Your task to perform on an android device: manage bookmarks in the chrome app Image 0: 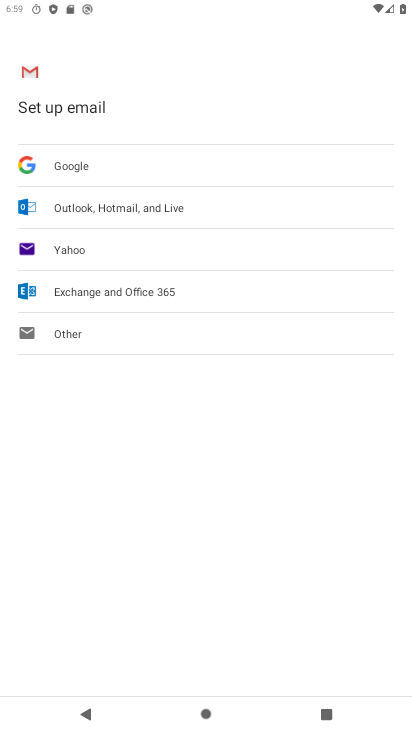
Step 0: press home button
Your task to perform on an android device: manage bookmarks in the chrome app Image 1: 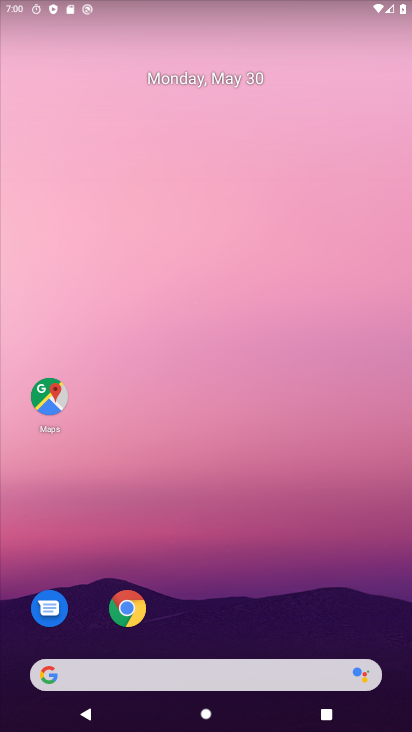
Step 1: click (131, 600)
Your task to perform on an android device: manage bookmarks in the chrome app Image 2: 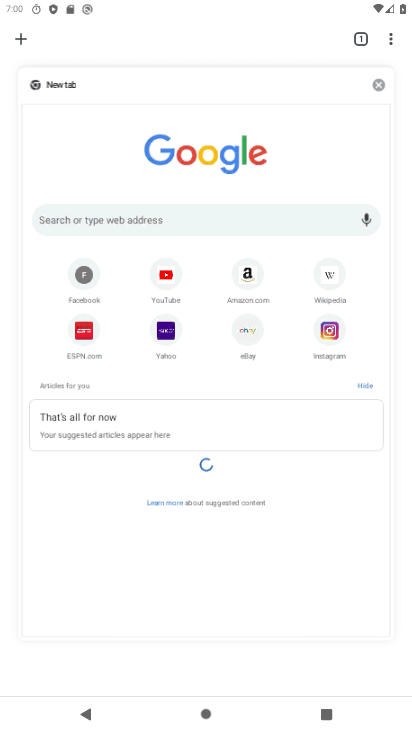
Step 2: click (283, 110)
Your task to perform on an android device: manage bookmarks in the chrome app Image 3: 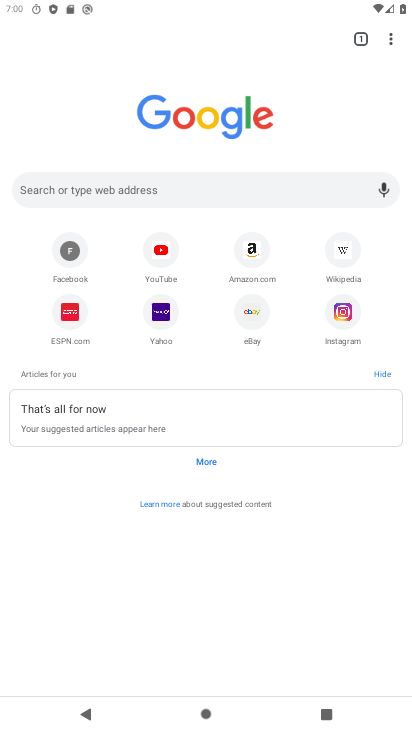
Step 3: click (386, 32)
Your task to perform on an android device: manage bookmarks in the chrome app Image 4: 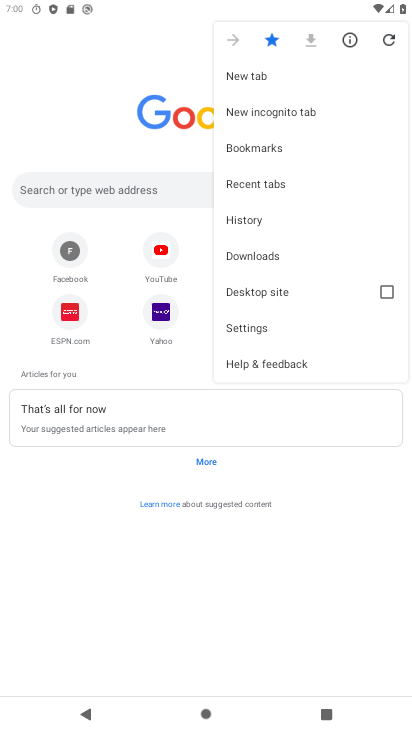
Step 4: click (266, 140)
Your task to perform on an android device: manage bookmarks in the chrome app Image 5: 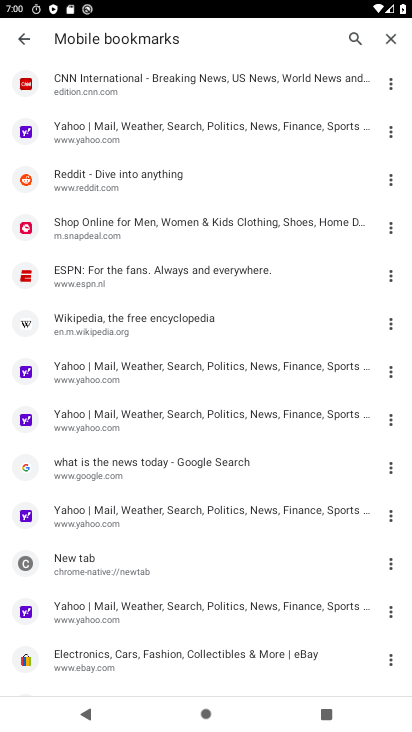
Step 5: task complete